Your task to perform on an android device: open wifi settings Image 0: 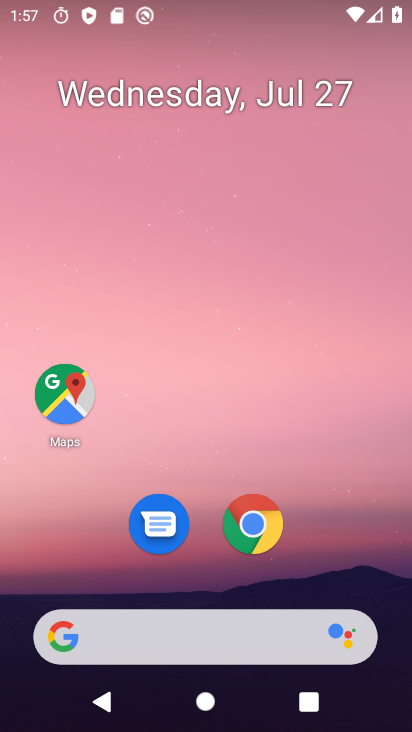
Step 0: drag from (329, 550) to (316, 93)
Your task to perform on an android device: open wifi settings Image 1: 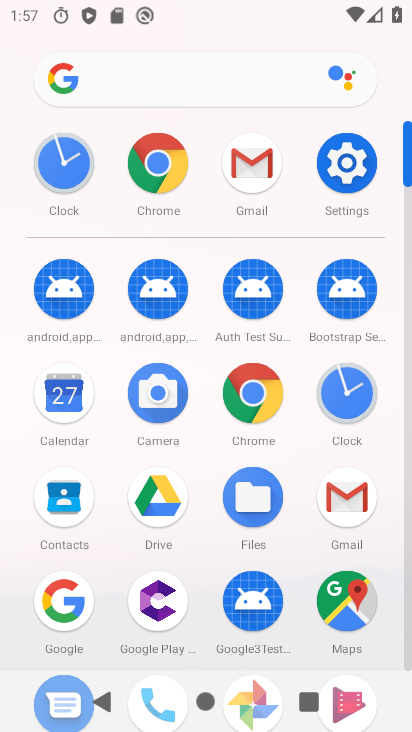
Step 1: click (353, 172)
Your task to perform on an android device: open wifi settings Image 2: 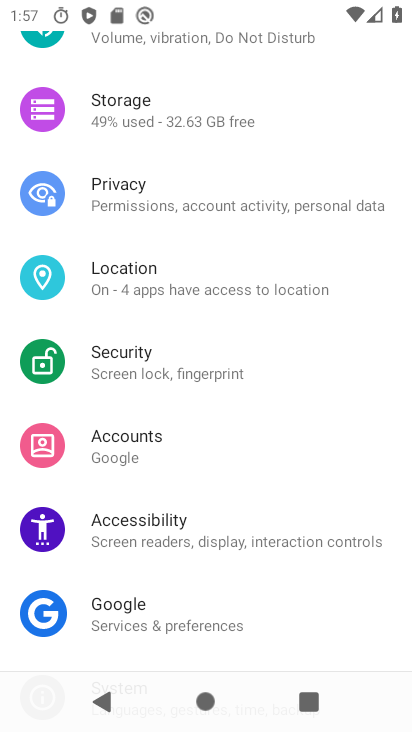
Step 2: drag from (223, 148) to (159, 587)
Your task to perform on an android device: open wifi settings Image 3: 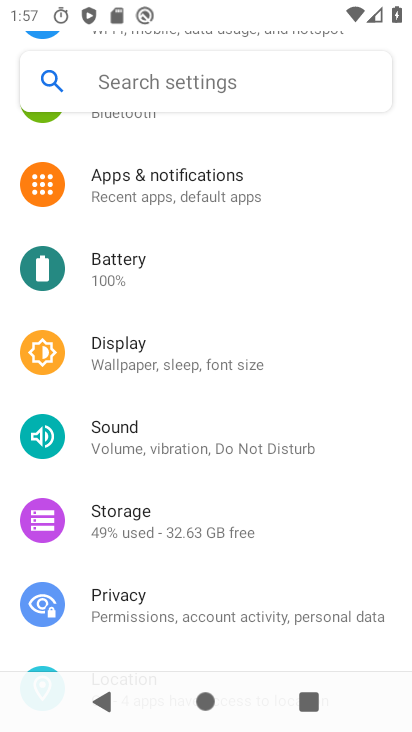
Step 3: drag from (261, 268) to (265, 566)
Your task to perform on an android device: open wifi settings Image 4: 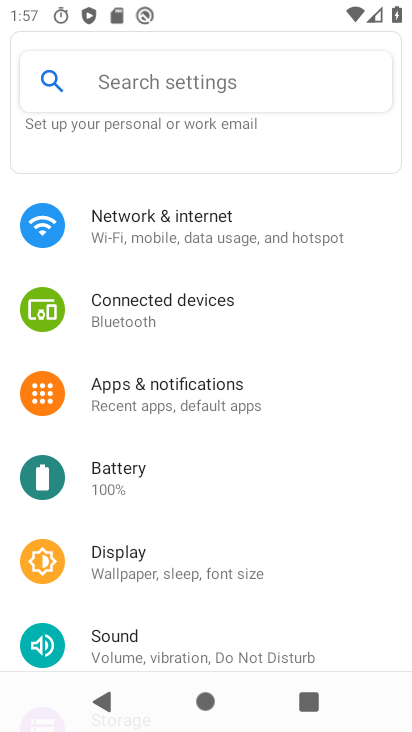
Step 4: click (251, 243)
Your task to perform on an android device: open wifi settings Image 5: 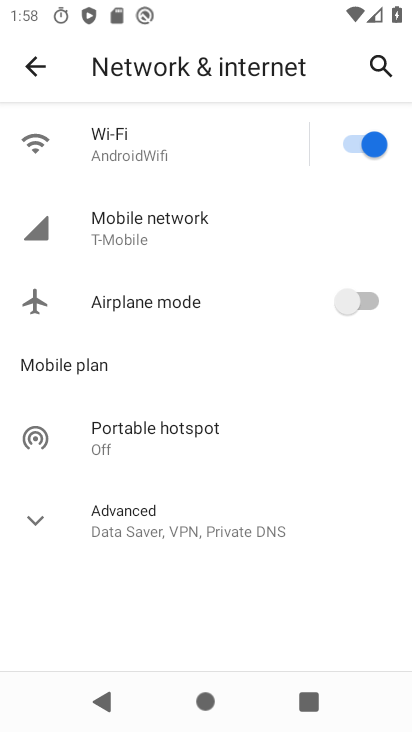
Step 5: click (152, 135)
Your task to perform on an android device: open wifi settings Image 6: 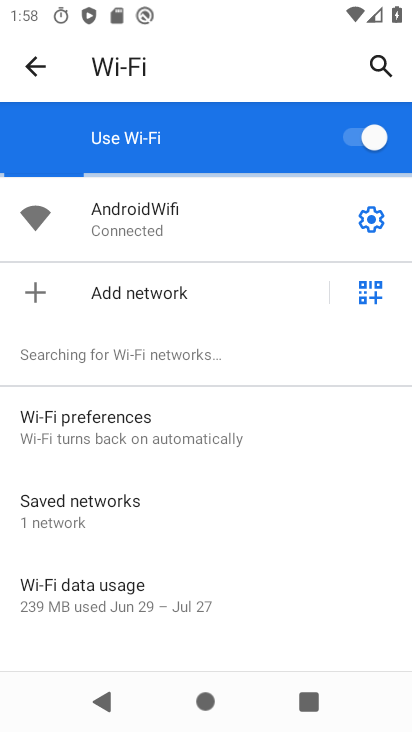
Step 6: task complete